Your task to perform on an android device: Turn on the flashlight Image 0: 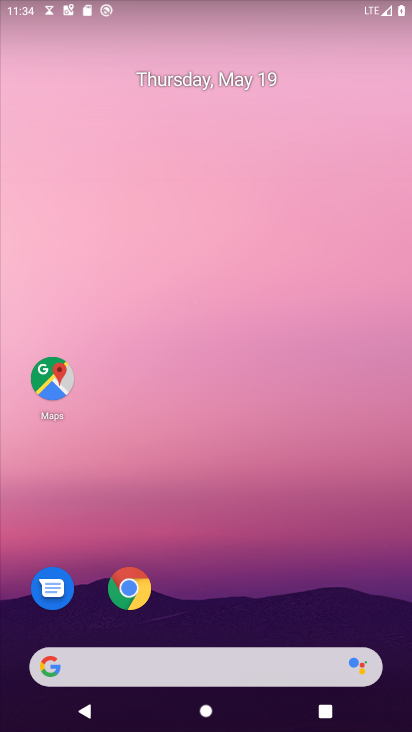
Step 0: drag from (212, 5) to (194, 581)
Your task to perform on an android device: Turn on the flashlight Image 1: 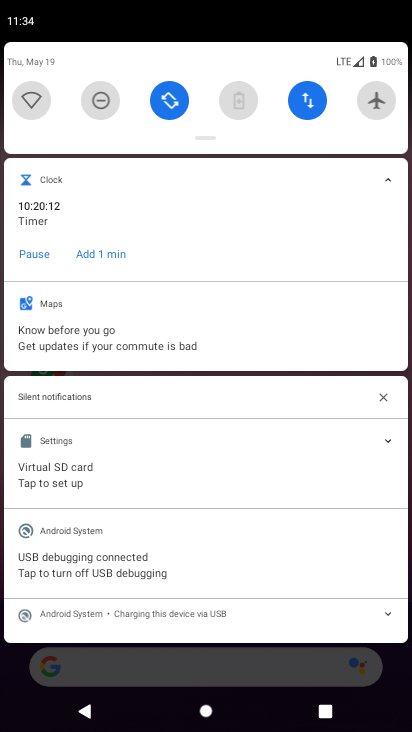
Step 1: task complete